Your task to perform on an android device: Open settings on Google Maps Image 0: 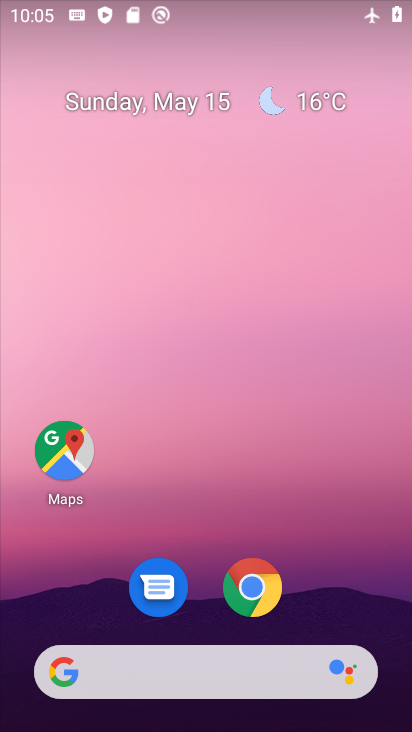
Step 0: drag from (349, 544) to (256, 11)
Your task to perform on an android device: Open settings on Google Maps Image 1: 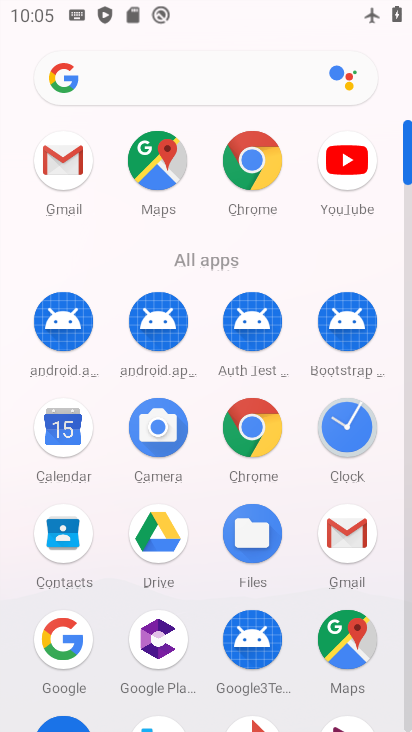
Step 1: drag from (22, 562) to (2, 258)
Your task to perform on an android device: Open settings on Google Maps Image 2: 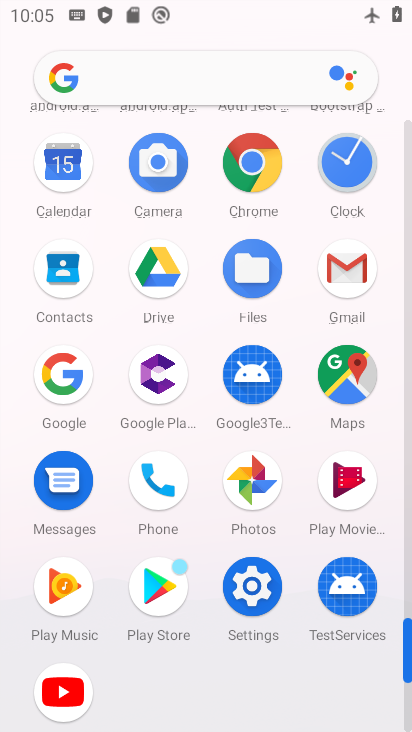
Step 2: drag from (19, 233) to (20, 488)
Your task to perform on an android device: Open settings on Google Maps Image 3: 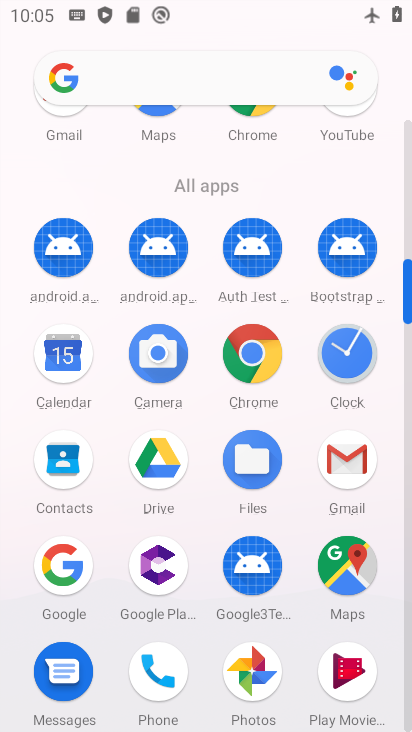
Step 3: click (346, 564)
Your task to perform on an android device: Open settings on Google Maps Image 4: 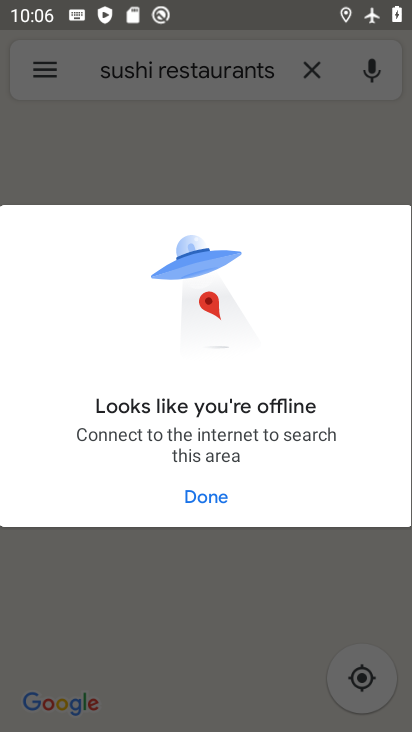
Step 4: click (214, 495)
Your task to perform on an android device: Open settings on Google Maps Image 5: 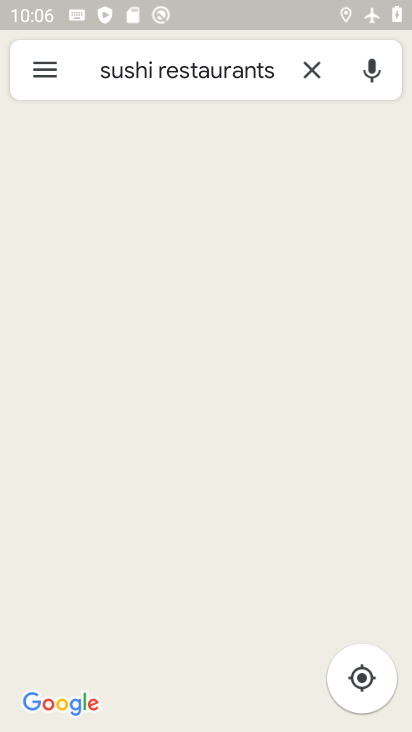
Step 5: click (33, 64)
Your task to perform on an android device: Open settings on Google Maps Image 6: 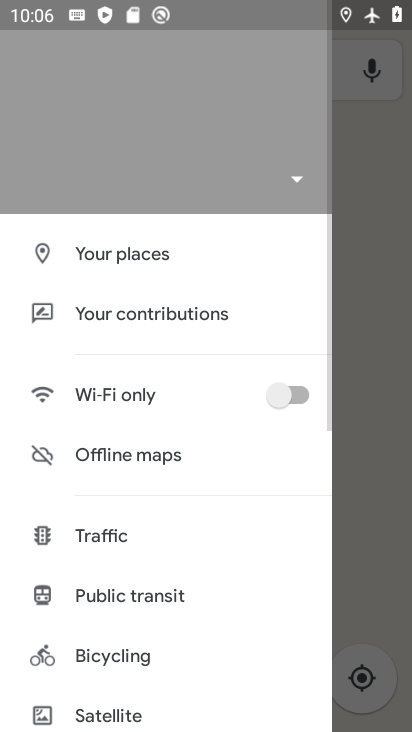
Step 6: drag from (192, 644) to (182, 224)
Your task to perform on an android device: Open settings on Google Maps Image 7: 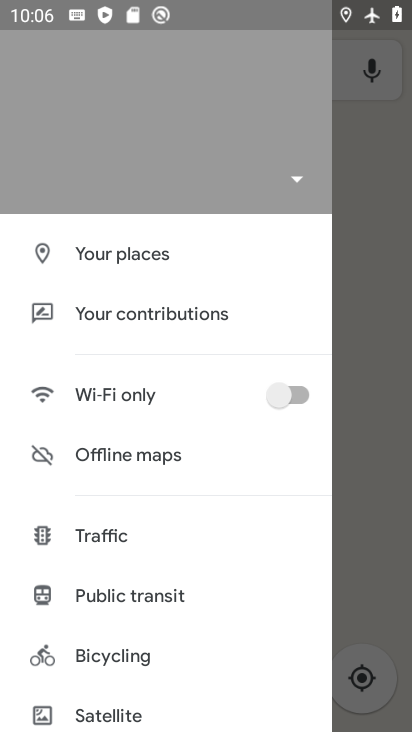
Step 7: drag from (181, 650) to (179, 234)
Your task to perform on an android device: Open settings on Google Maps Image 8: 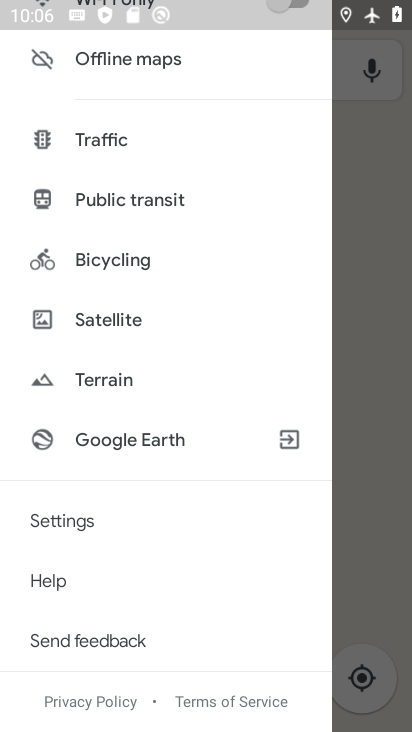
Step 8: click (64, 517)
Your task to perform on an android device: Open settings on Google Maps Image 9: 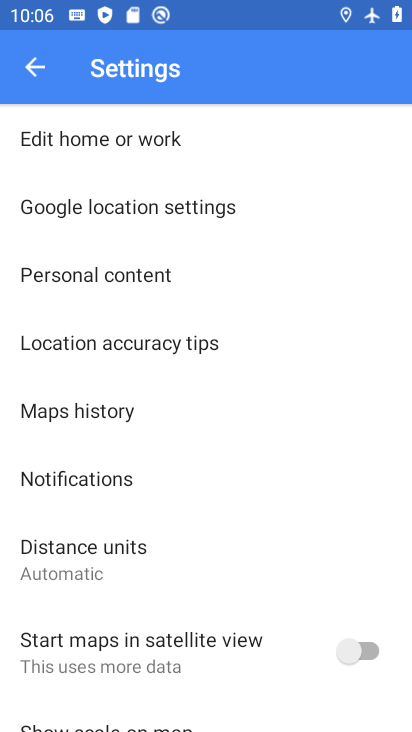
Step 9: task complete